Your task to perform on an android device: turn on sleep mode Image 0: 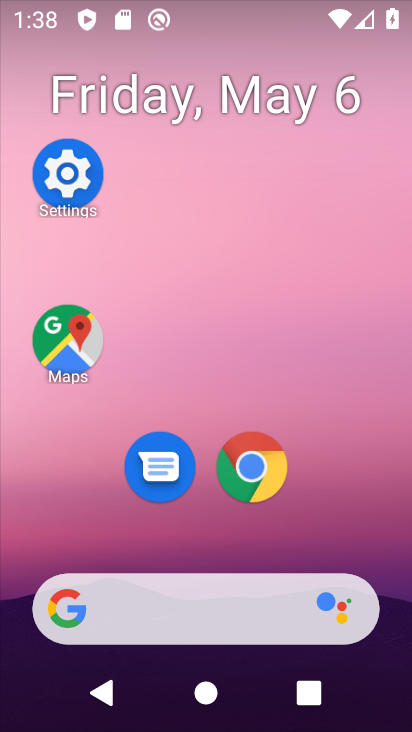
Step 0: click (66, 189)
Your task to perform on an android device: turn on sleep mode Image 1: 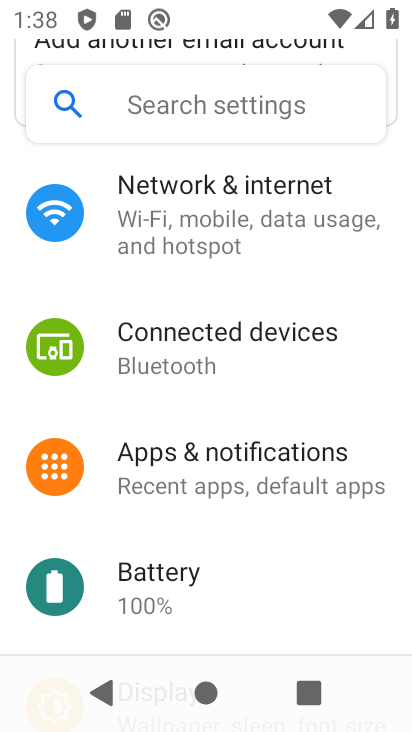
Step 1: drag from (259, 566) to (251, 189)
Your task to perform on an android device: turn on sleep mode Image 2: 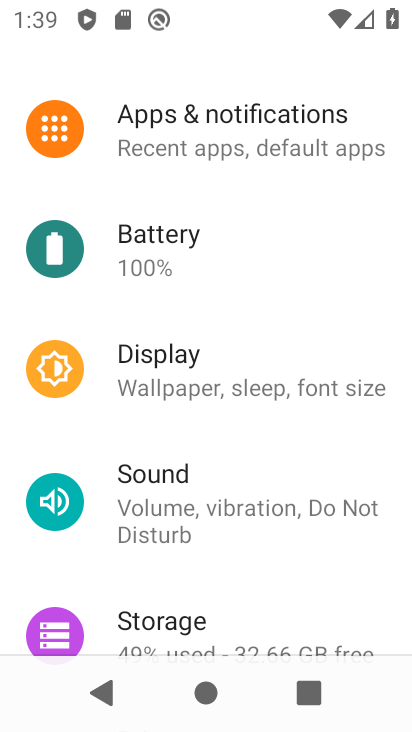
Step 2: click (261, 369)
Your task to perform on an android device: turn on sleep mode Image 3: 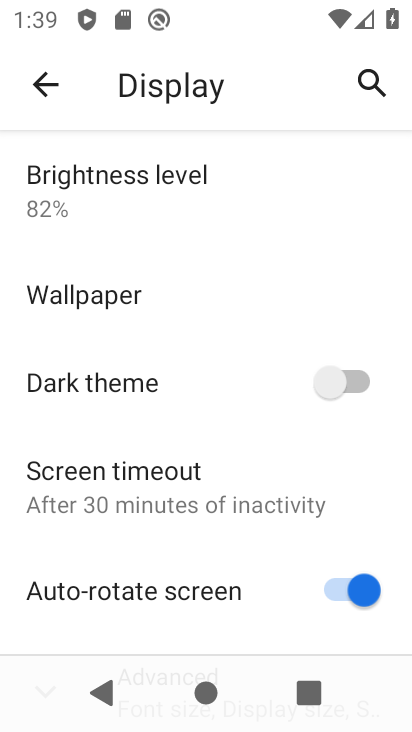
Step 3: click (208, 469)
Your task to perform on an android device: turn on sleep mode Image 4: 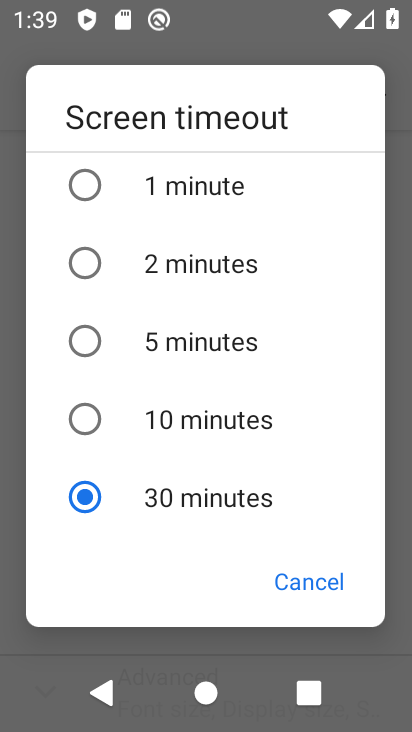
Step 4: task complete